Your task to perform on an android device: Open the Play Movies app and select the watchlist tab. Image 0: 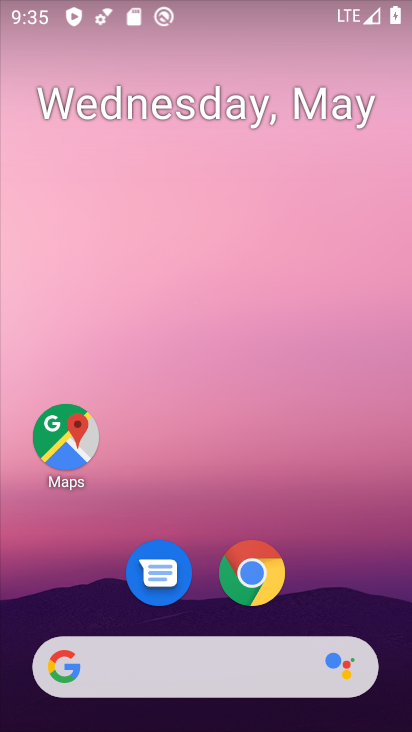
Step 0: drag from (355, 598) to (331, 229)
Your task to perform on an android device: Open the Play Movies app and select the watchlist tab. Image 1: 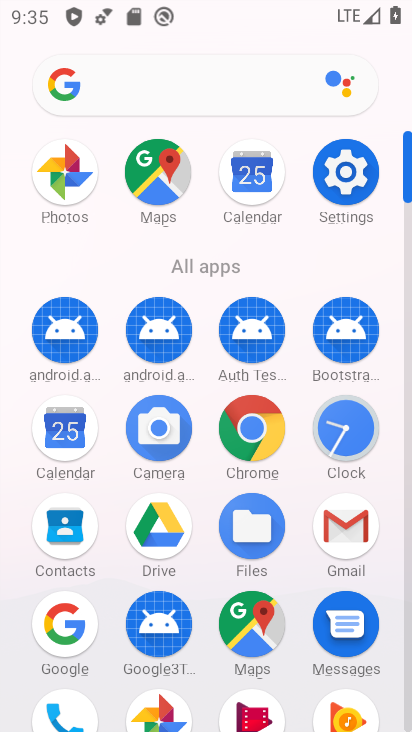
Step 1: drag from (386, 688) to (381, 488)
Your task to perform on an android device: Open the Play Movies app and select the watchlist tab. Image 2: 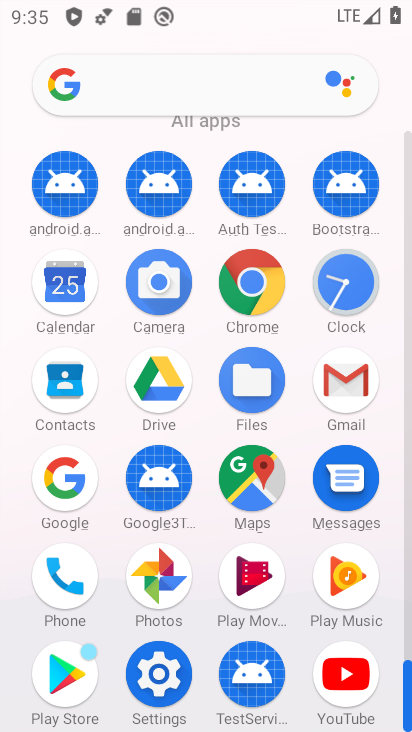
Step 2: click (261, 564)
Your task to perform on an android device: Open the Play Movies app and select the watchlist tab. Image 3: 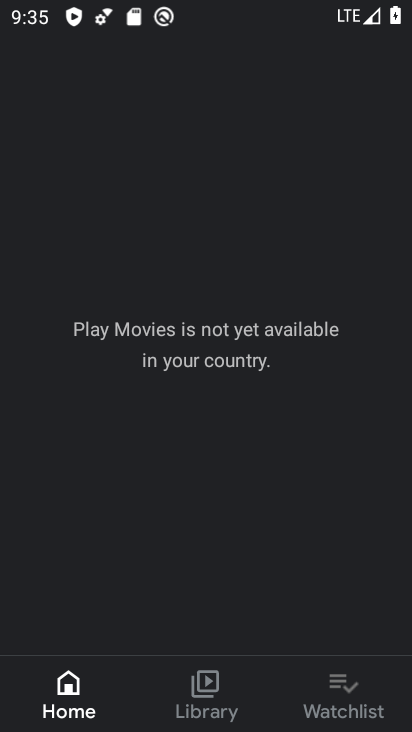
Step 3: click (328, 691)
Your task to perform on an android device: Open the Play Movies app and select the watchlist tab. Image 4: 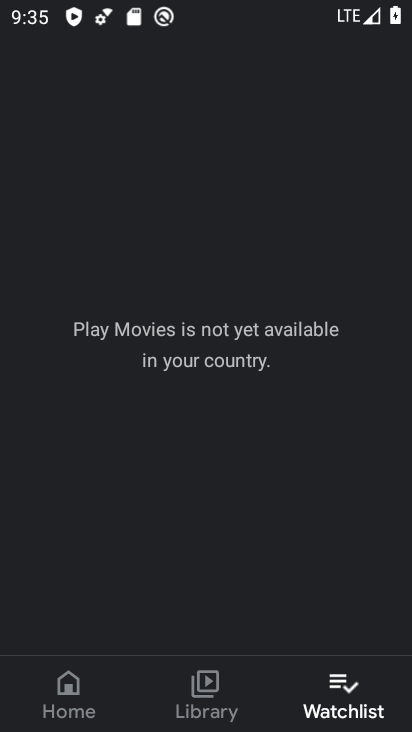
Step 4: task complete